Your task to perform on an android device: Go to display settings Image 0: 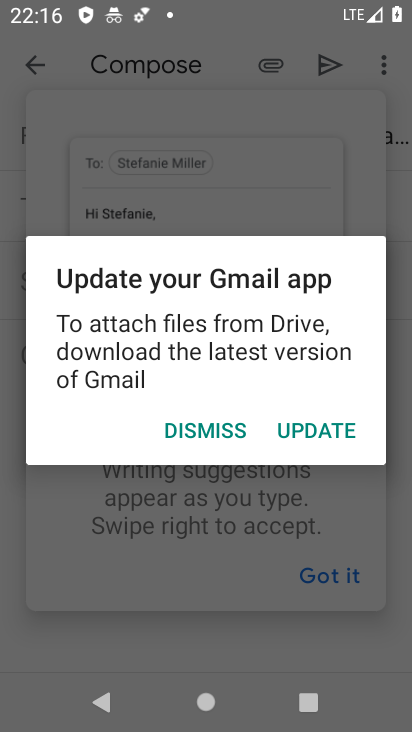
Step 0: click (233, 423)
Your task to perform on an android device: Go to display settings Image 1: 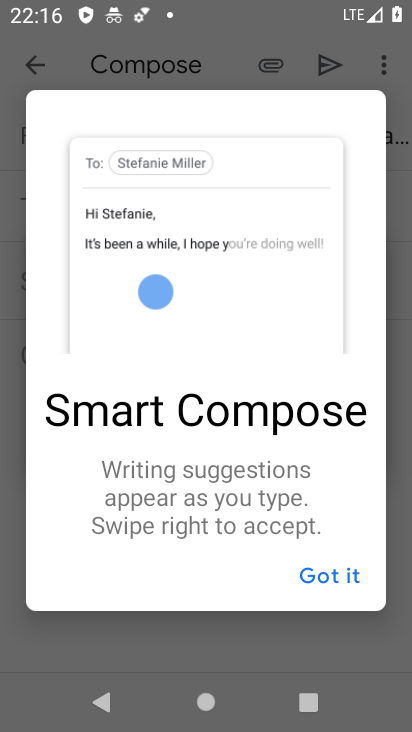
Step 1: click (322, 575)
Your task to perform on an android device: Go to display settings Image 2: 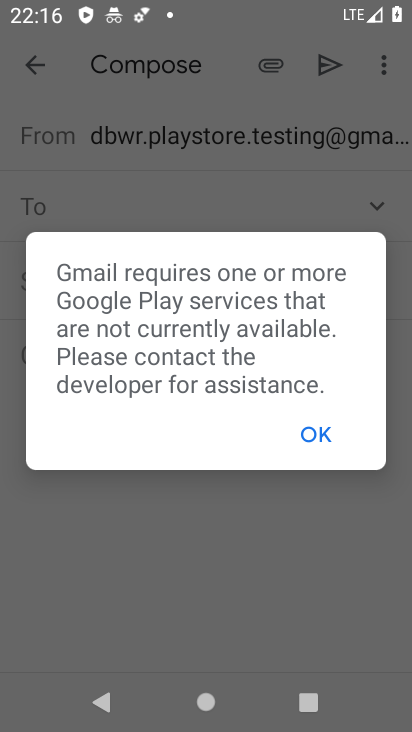
Step 2: click (314, 430)
Your task to perform on an android device: Go to display settings Image 3: 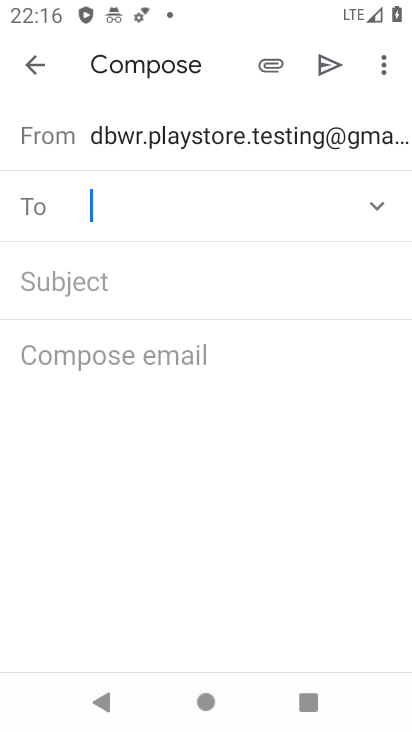
Step 3: click (43, 66)
Your task to perform on an android device: Go to display settings Image 4: 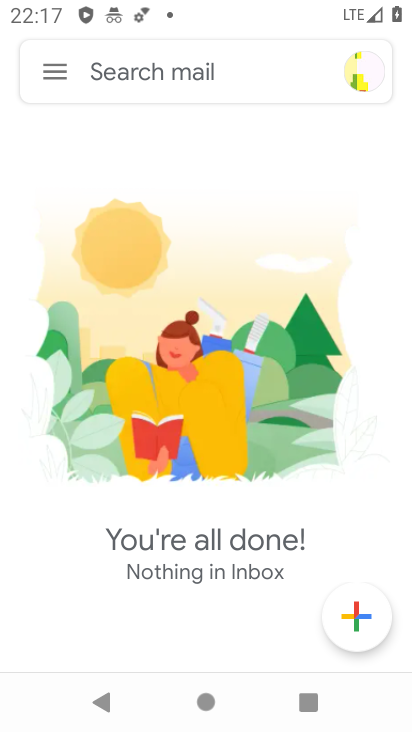
Step 4: press home button
Your task to perform on an android device: Go to display settings Image 5: 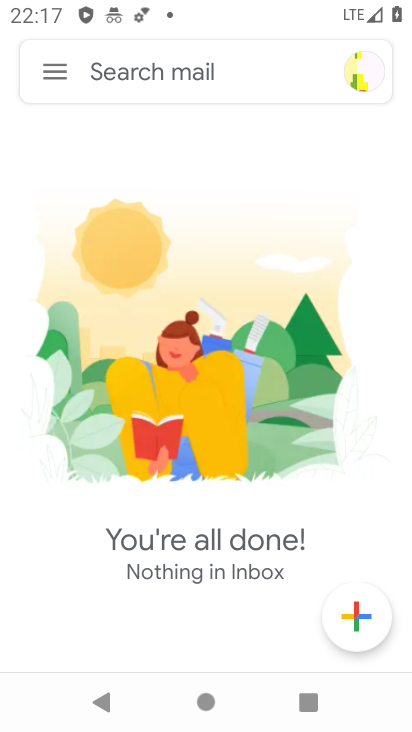
Step 5: press home button
Your task to perform on an android device: Go to display settings Image 6: 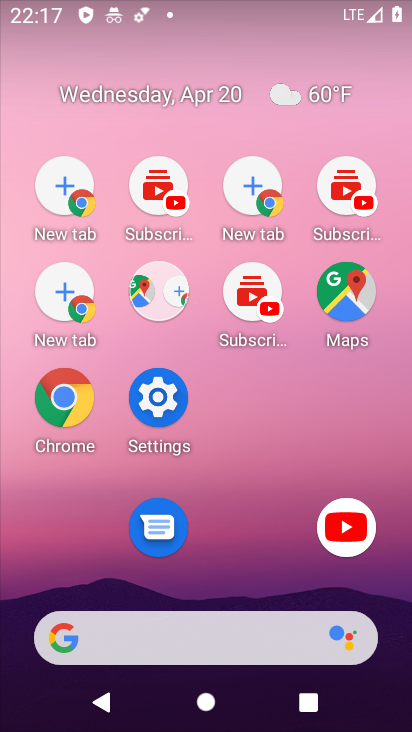
Step 6: drag from (246, 644) to (148, 282)
Your task to perform on an android device: Go to display settings Image 7: 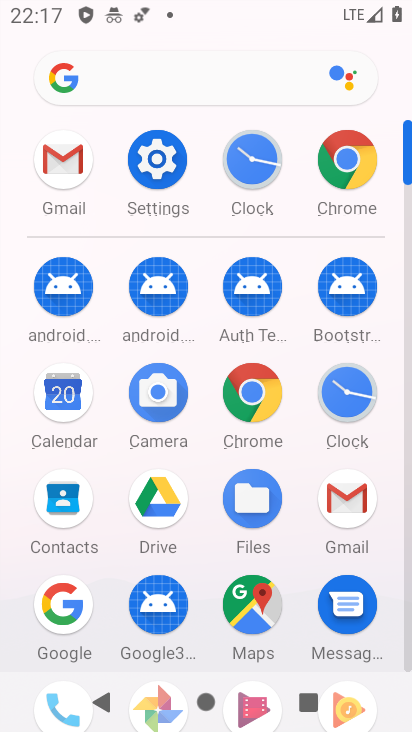
Step 7: click (165, 175)
Your task to perform on an android device: Go to display settings Image 8: 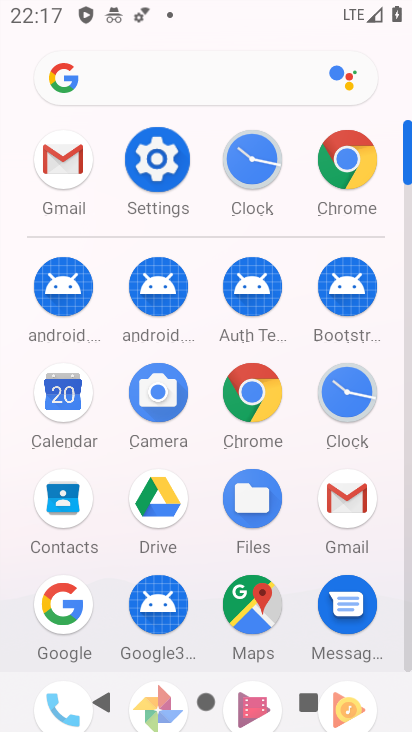
Step 8: click (162, 171)
Your task to perform on an android device: Go to display settings Image 9: 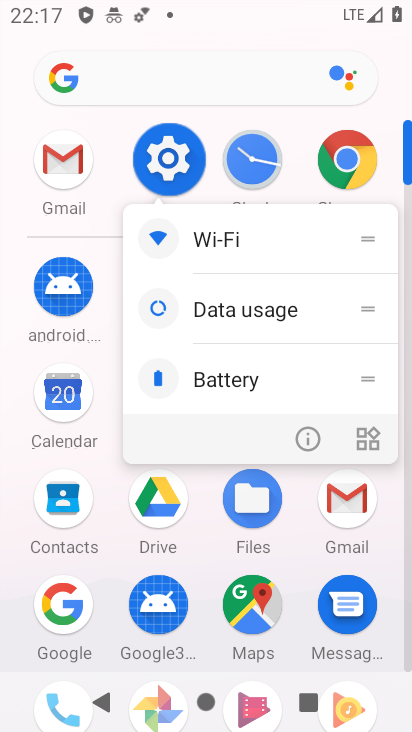
Step 9: click (175, 171)
Your task to perform on an android device: Go to display settings Image 10: 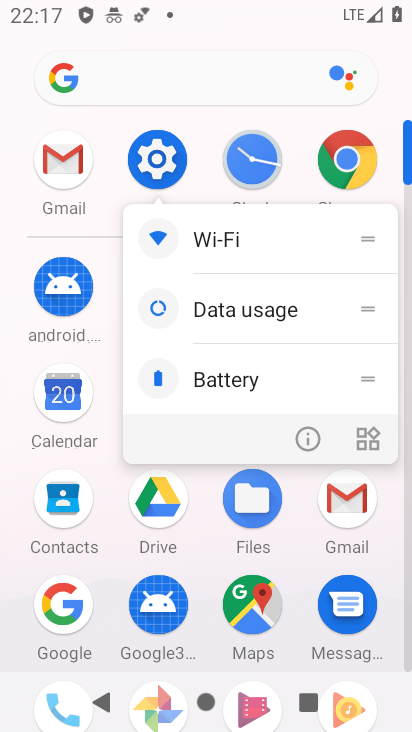
Step 10: click (168, 161)
Your task to perform on an android device: Go to display settings Image 11: 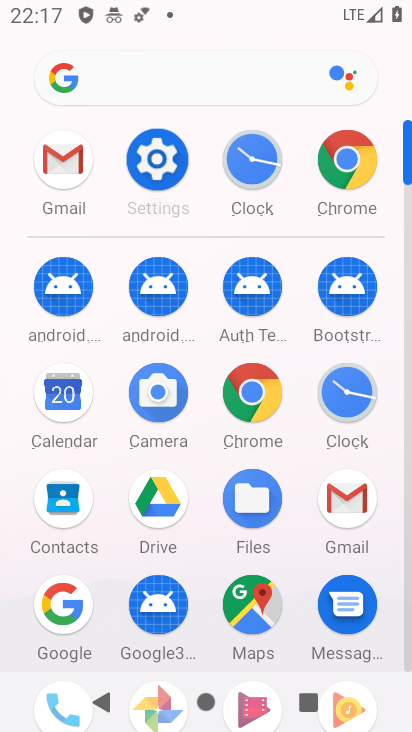
Step 11: click (171, 161)
Your task to perform on an android device: Go to display settings Image 12: 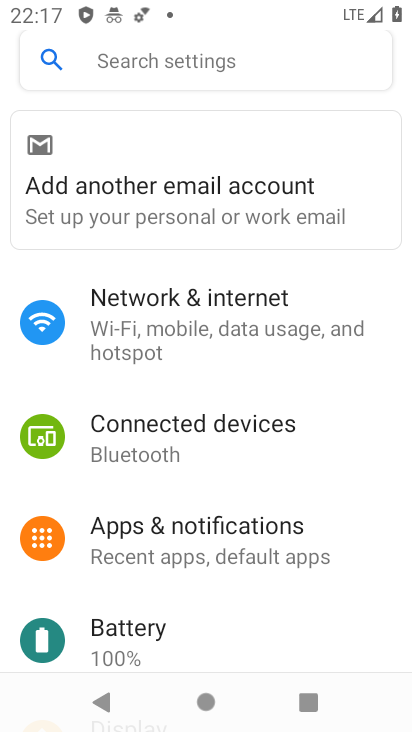
Step 12: drag from (140, 533) to (87, 156)
Your task to perform on an android device: Go to display settings Image 13: 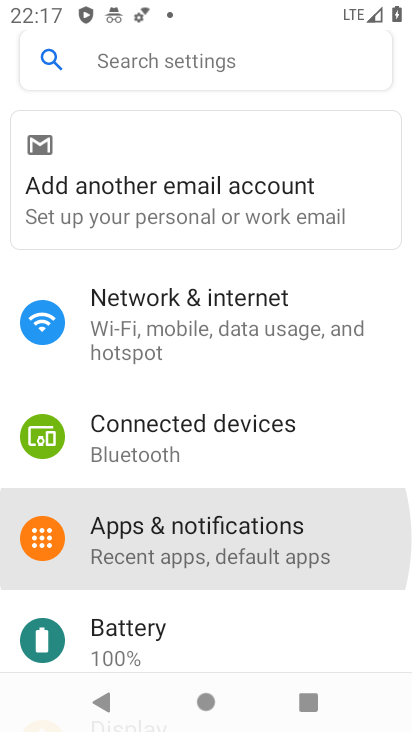
Step 13: drag from (176, 502) to (183, 173)
Your task to perform on an android device: Go to display settings Image 14: 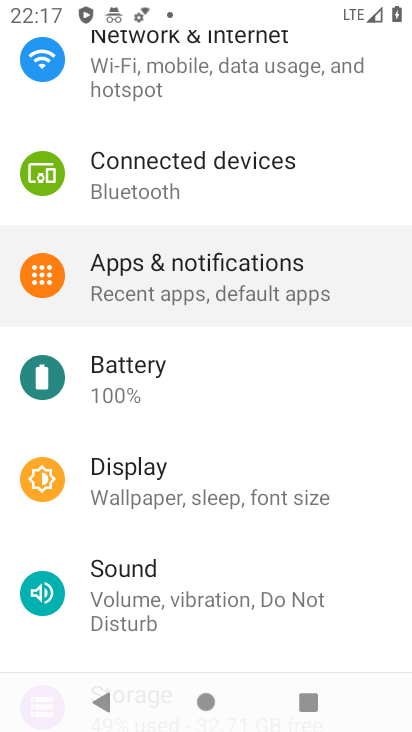
Step 14: drag from (180, 497) to (140, 217)
Your task to perform on an android device: Go to display settings Image 15: 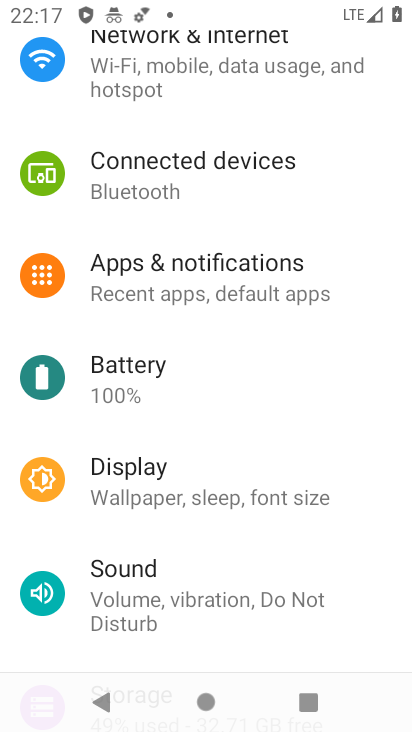
Step 15: click (123, 484)
Your task to perform on an android device: Go to display settings Image 16: 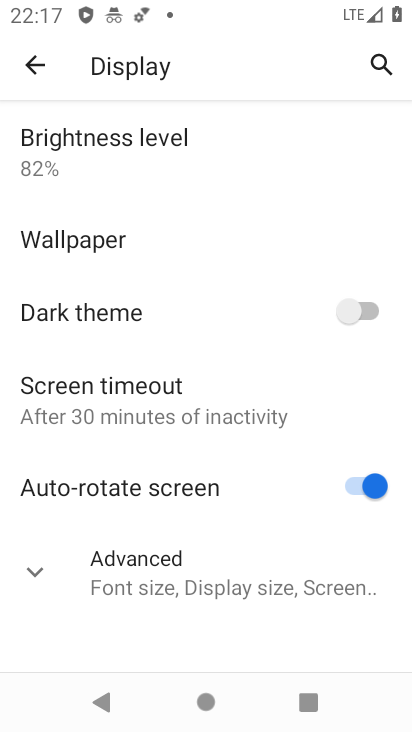
Step 16: task complete